Your task to perform on an android device: turn on bluetooth scan Image 0: 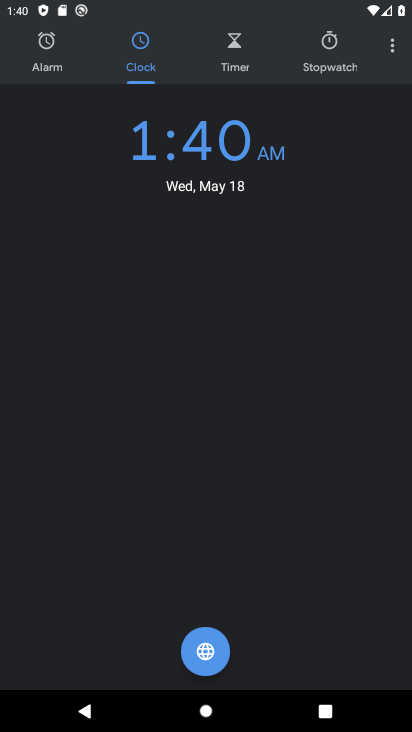
Step 0: press home button
Your task to perform on an android device: turn on bluetooth scan Image 1: 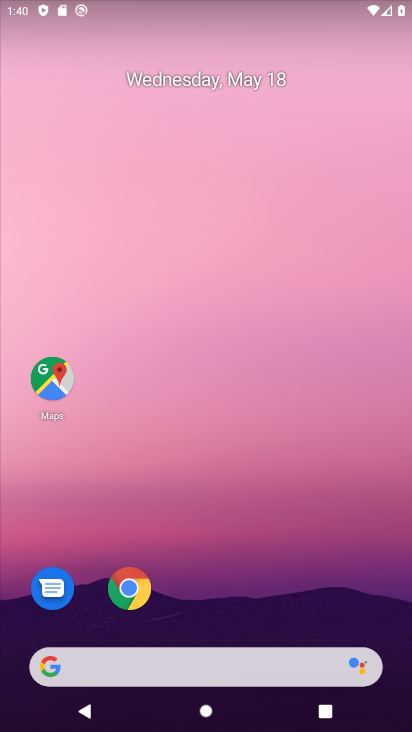
Step 1: drag from (198, 628) to (307, 143)
Your task to perform on an android device: turn on bluetooth scan Image 2: 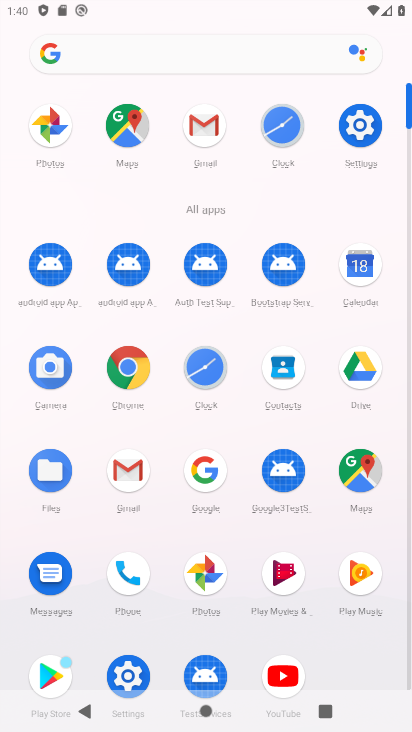
Step 2: click (119, 676)
Your task to perform on an android device: turn on bluetooth scan Image 3: 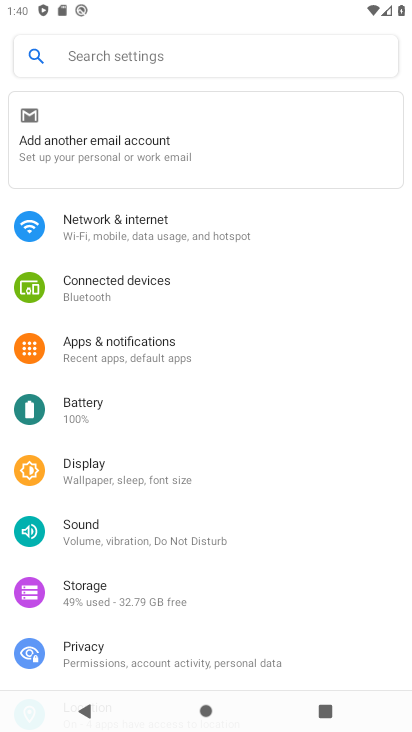
Step 3: click (210, 292)
Your task to perform on an android device: turn on bluetooth scan Image 4: 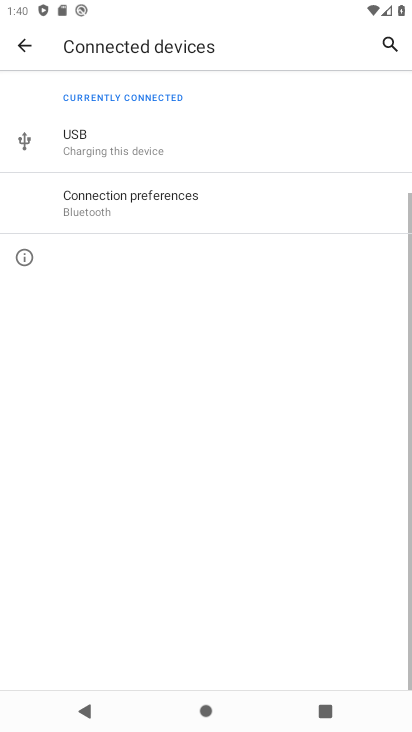
Step 4: click (179, 199)
Your task to perform on an android device: turn on bluetooth scan Image 5: 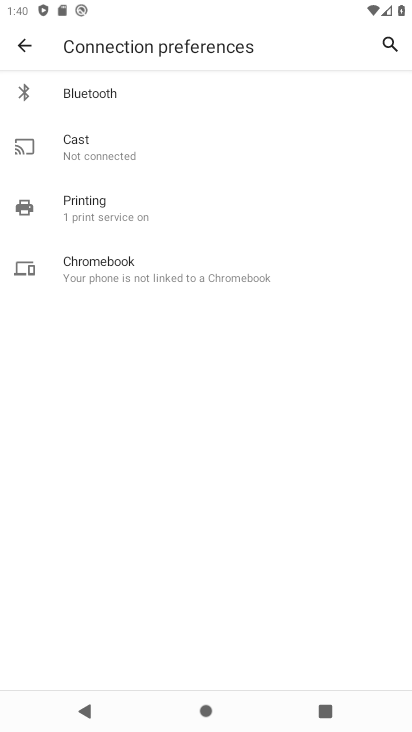
Step 5: click (168, 107)
Your task to perform on an android device: turn on bluetooth scan Image 6: 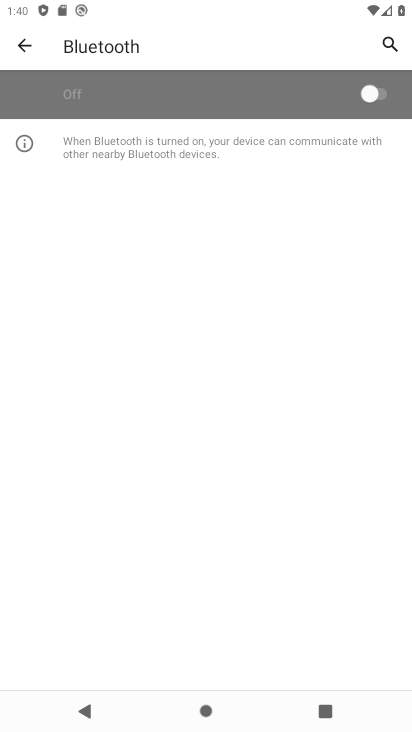
Step 6: click (388, 94)
Your task to perform on an android device: turn on bluetooth scan Image 7: 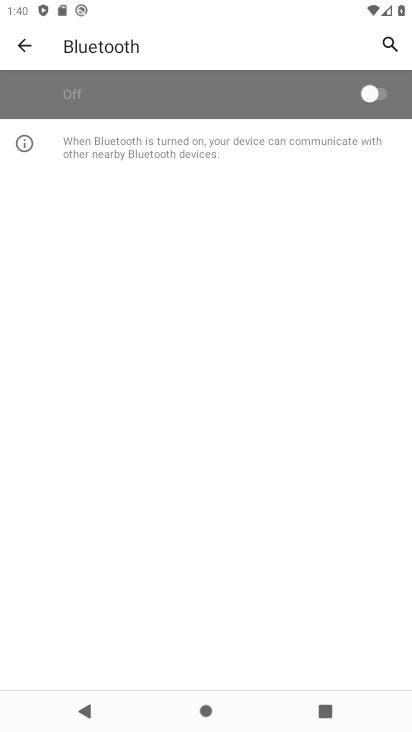
Step 7: click (389, 94)
Your task to perform on an android device: turn on bluetooth scan Image 8: 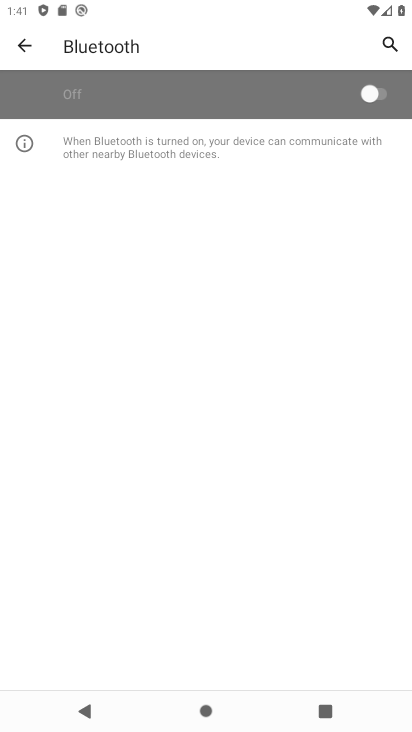
Step 8: task complete